Your task to perform on an android device: What's the weather going to be this weekend? Image 0: 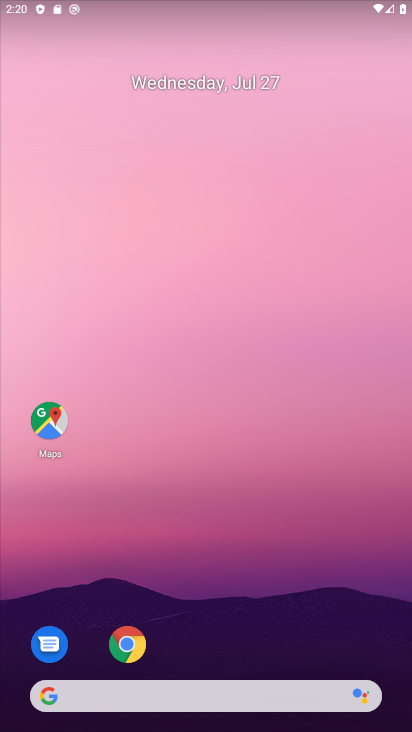
Step 0: drag from (216, 501) to (335, 12)
Your task to perform on an android device: What's the weather going to be this weekend? Image 1: 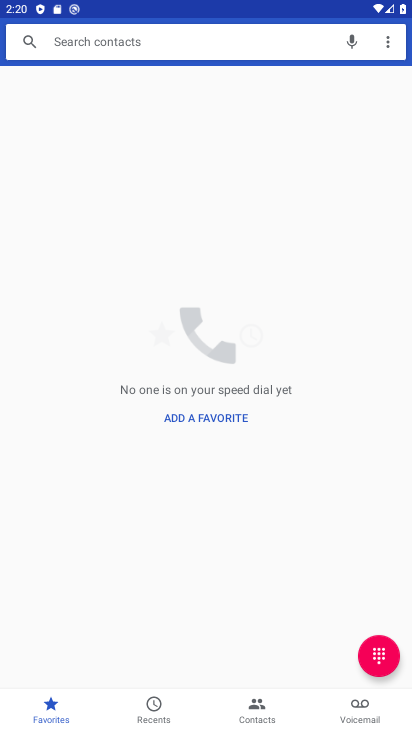
Step 1: press home button
Your task to perform on an android device: What's the weather going to be this weekend? Image 2: 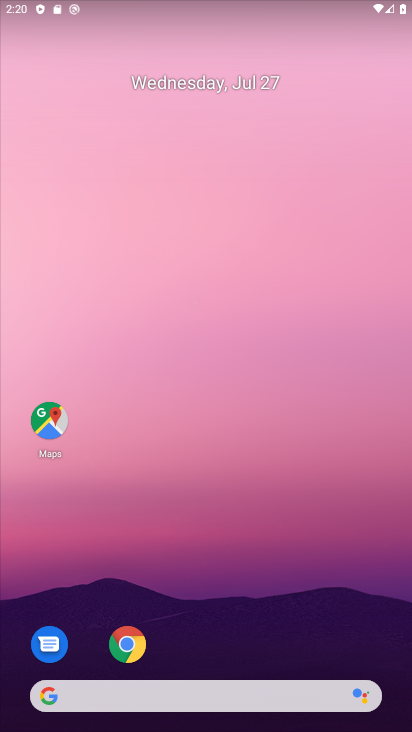
Step 2: click (186, 697)
Your task to perform on an android device: What's the weather going to be this weekend? Image 3: 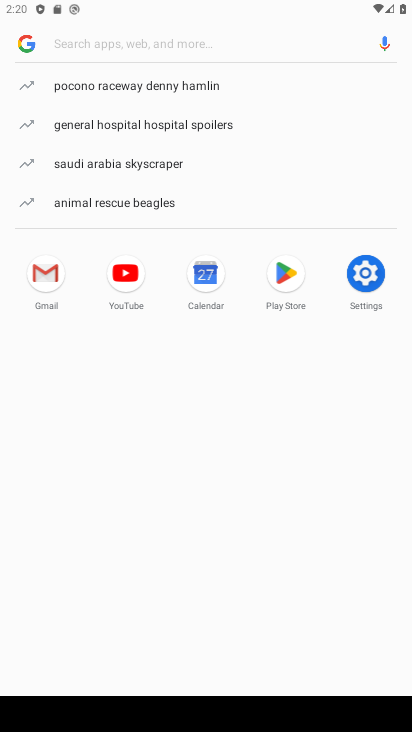
Step 3: type "weather"
Your task to perform on an android device: What's the weather going to be this weekend? Image 4: 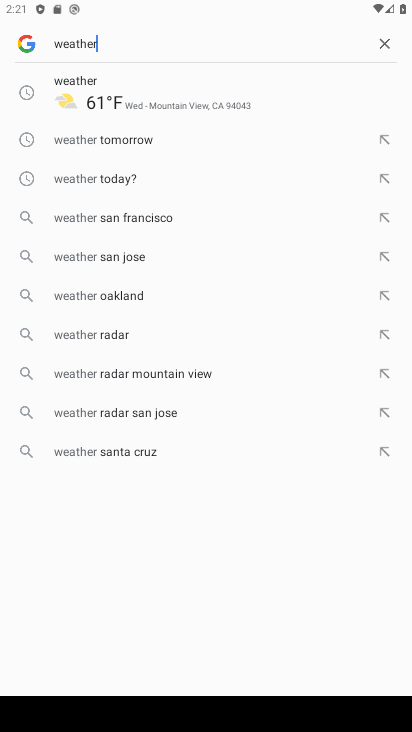
Step 4: click (94, 108)
Your task to perform on an android device: What's the weather going to be this weekend? Image 5: 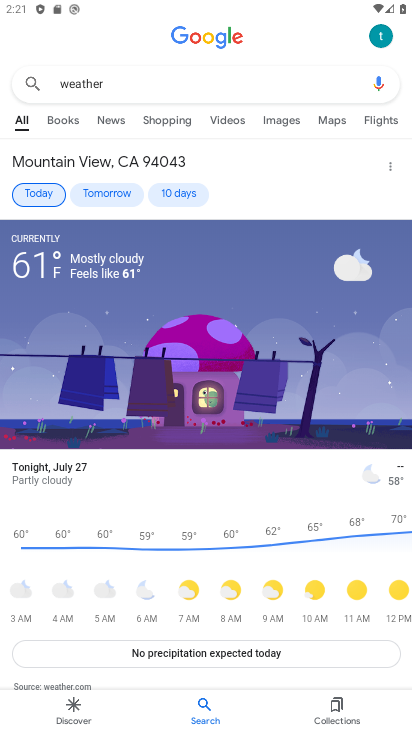
Step 5: click (190, 188)
Your task to perform on an android device: What's the weather going to be this weekend? Image 6: 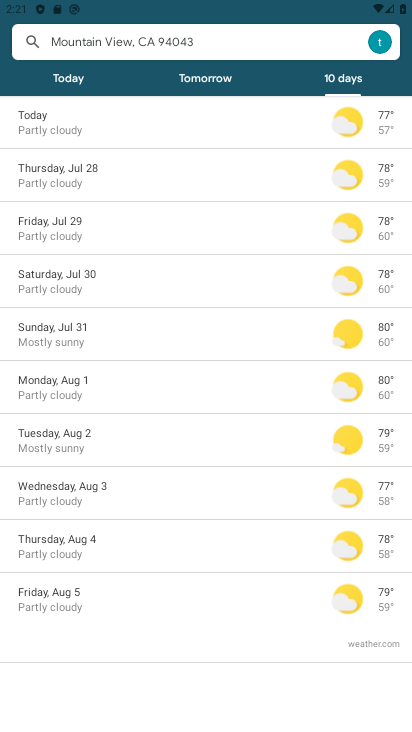
Step 6: task complete